Your task to perform on an android device: visit the assistant section in the google photos Image 0: 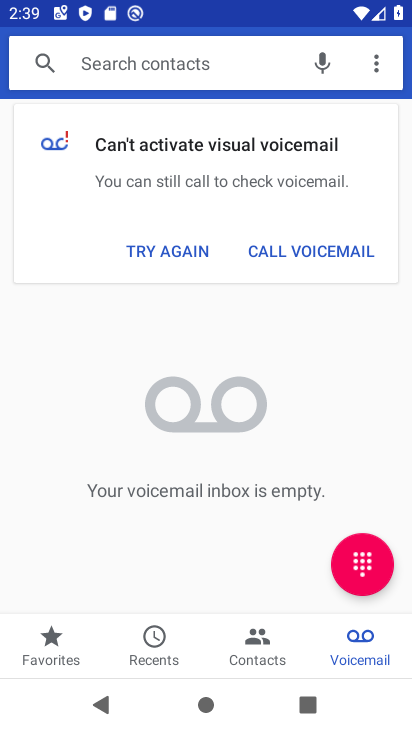
Step 0: press back button
Your task to perform on an android device: visit the assistant section in the google photos Image 1: 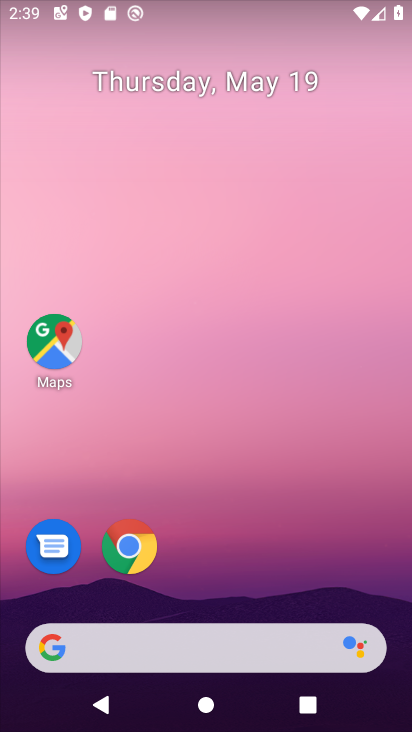
Step 1: drag from (270, 563) to (224, 34)
Your task to perform on an android device: visit the assistant section in the google photos Image 2: 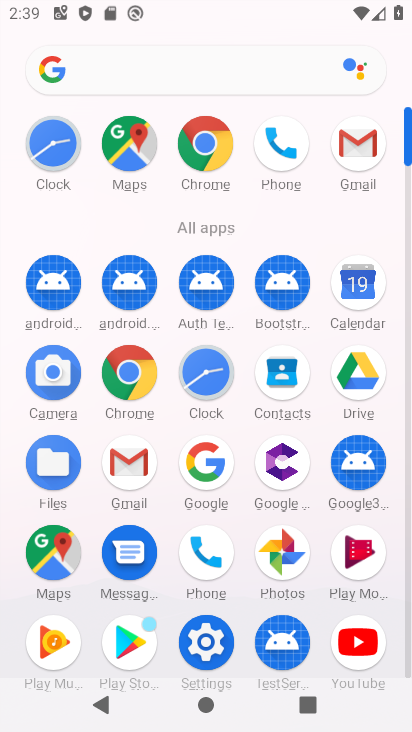
Step 2: click (285, 553)
Your task to perform on an android device: visit the assistant section in the google photos Image 3: 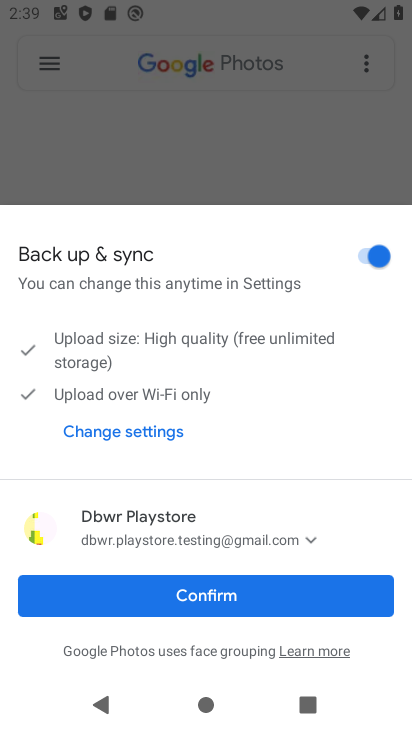
Step 3: click (220, 592)
Your task to perform on an android device: visit the assistant section in the google photos Image 4: 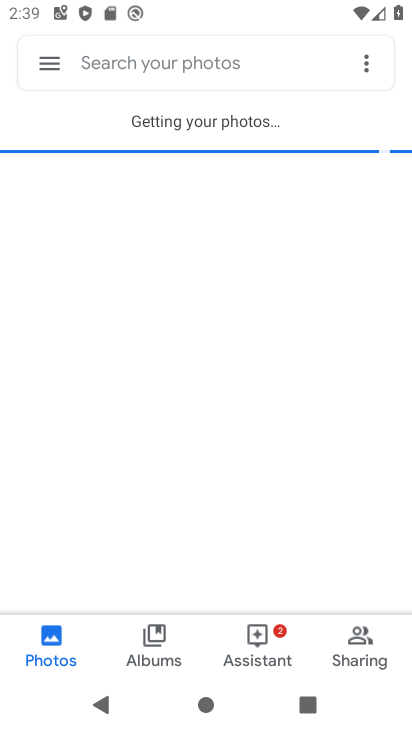
Step 4: click (252, 639)
Your task to perform on an android device: visit the assistant section in the google photos Image 5: 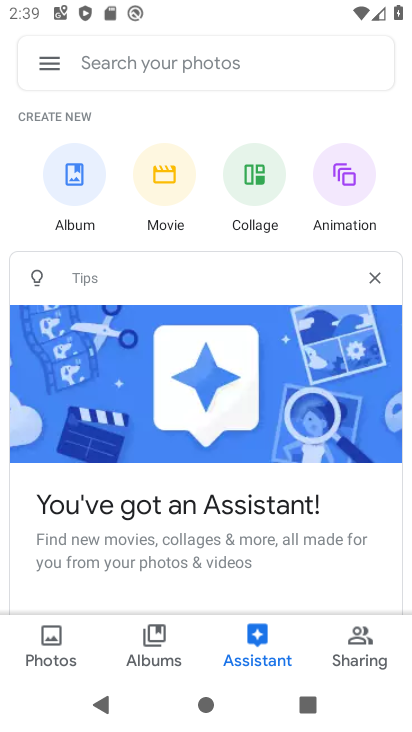
Step 5: task complete